Your task to perform on an android device: set the stopwatch Image 0: 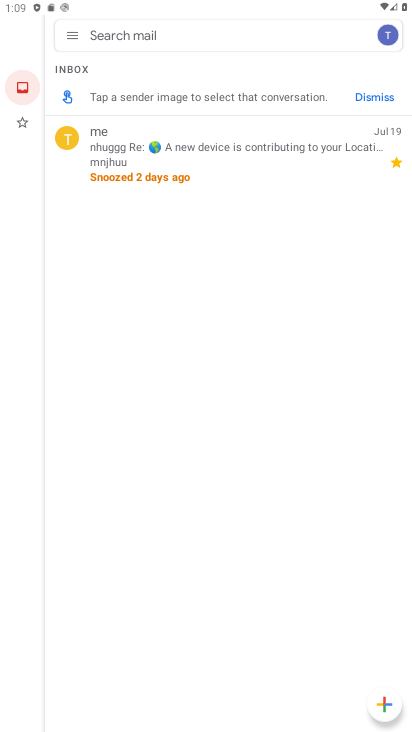
Step 0: press home button
Your task to perform on an android device: set the stopwatch Image 1: 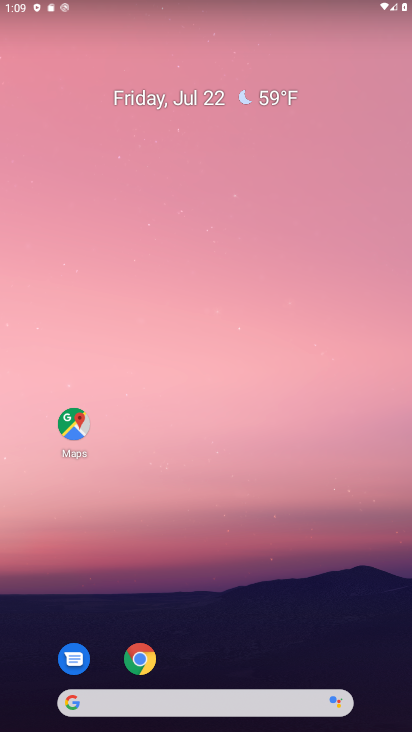
Step 1: drag from (273, 642) to (280, 61)
Your task to perform on an android device: set the stopwatch Image 2: 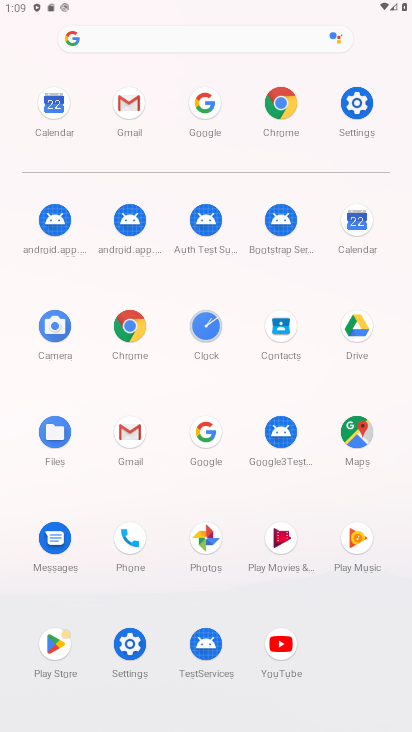
Step 2: click (196, 342)
Your task to perform on an android device: set the stopwatch Image 3: 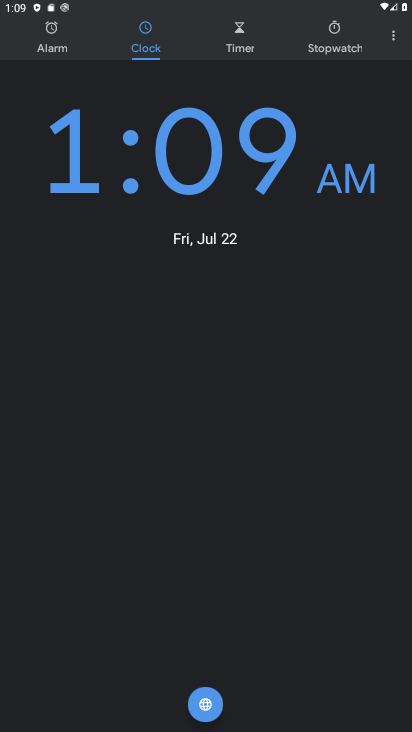
Step 3: click (339, 44)
Your task to perform on an android device: set the stopwatch Image 4: 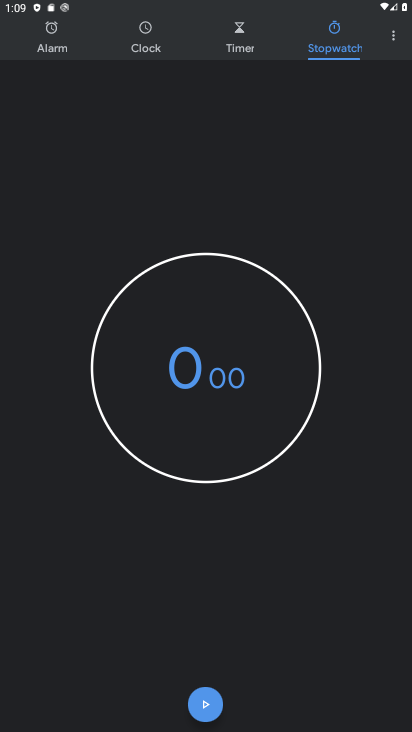
Step 4: click (205, 708)
Your task to perform on an android device: set the stopwatch Image 5: 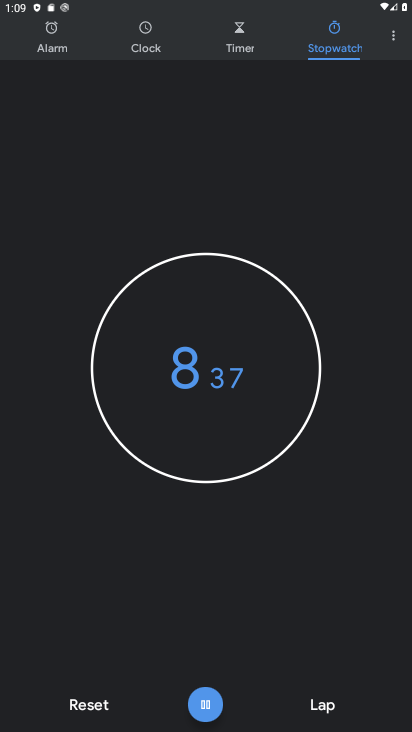
Step 5: task complete